Your task to perform on an android device: Go to settings Image 0: 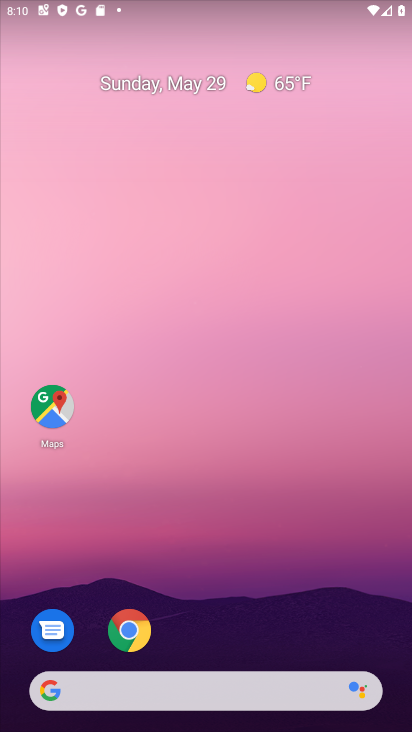
Step 0: drag from (210, 719) to (152, 201)
Your task to perform on an android device: Go to settings Image 1: 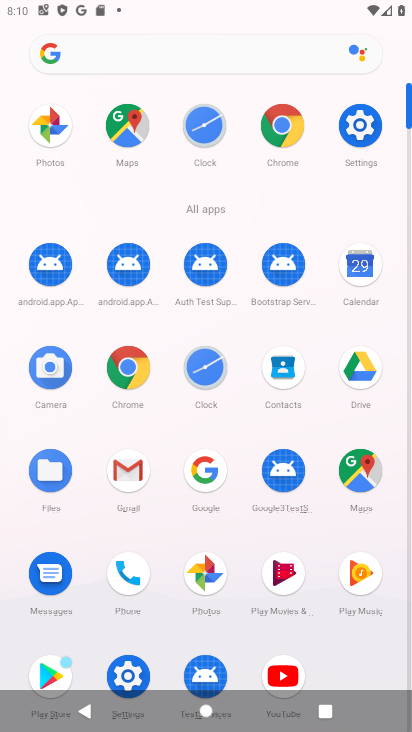
Step 1: click (361, 111)
Your task to perform on an android device: Go to settings Image 2: 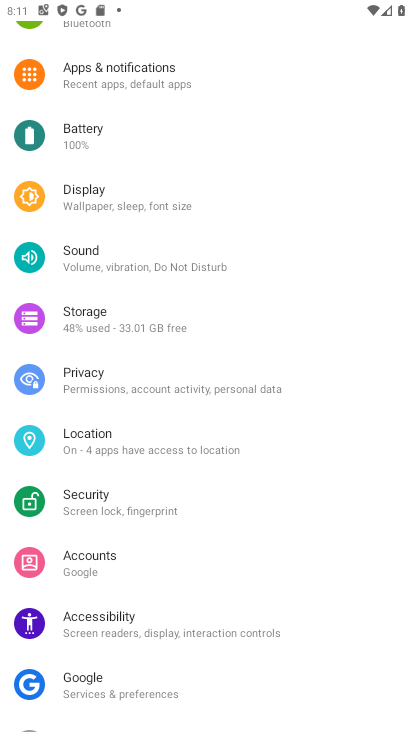
Step 2: task complete